Your task to perform on an android device: Open my contact list Image 0: 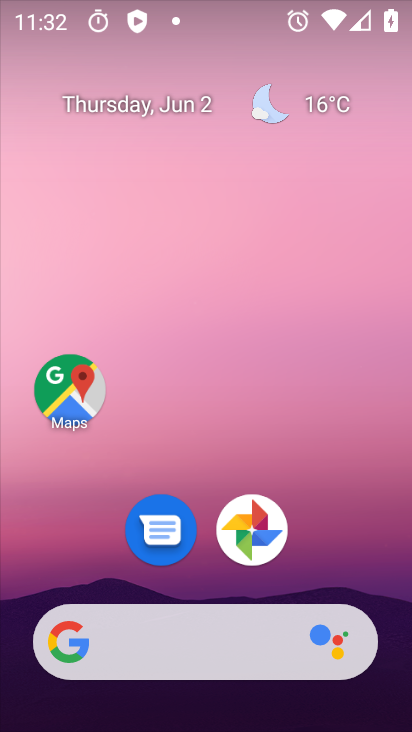
Step 0: drag from (262, 712) to (162, 14)
Your task to perform on an android device: Open my contact list Image 1: 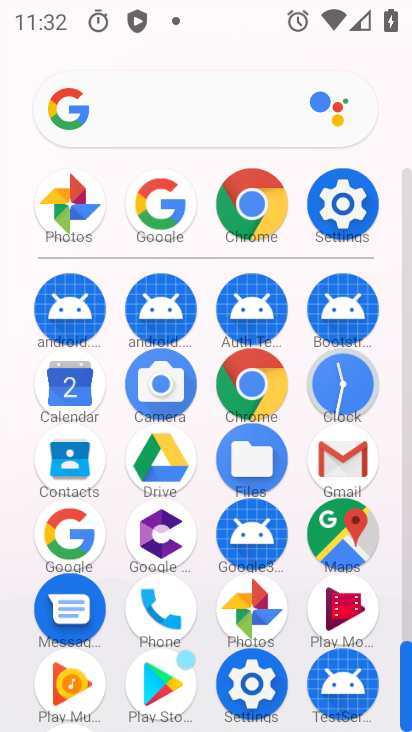
Step 1: click (56, 453)
Your task to perform on an android device: Open my contact list Image 2: 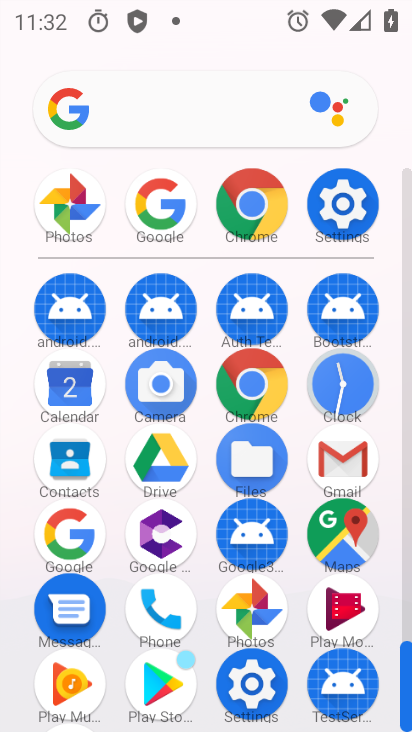
Step 2: click (56, 453)
Your task to perform on an android device: Open my contact list Image 3: 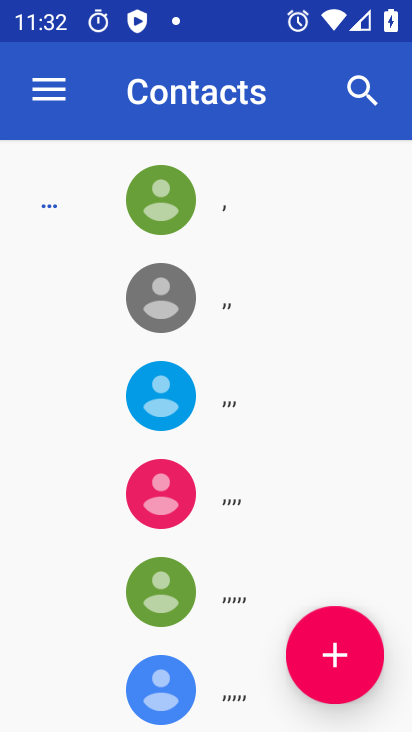
Step 3: click (60, 452)
Your task to perform on an android device: Open my contact list Image 4: 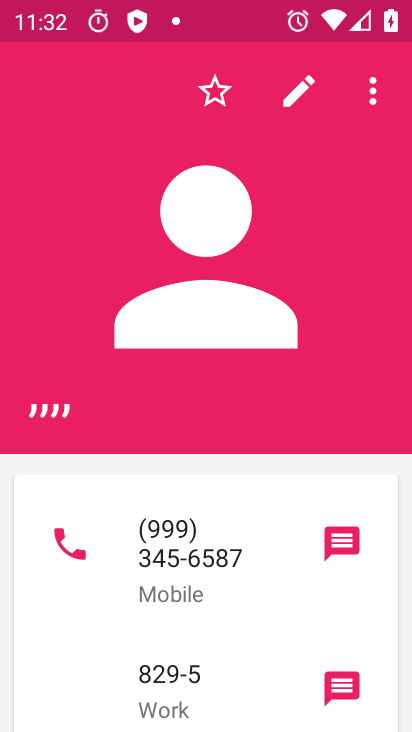
Step 4: task complete